Your task to perform on an android device: Go to settings Image 0: 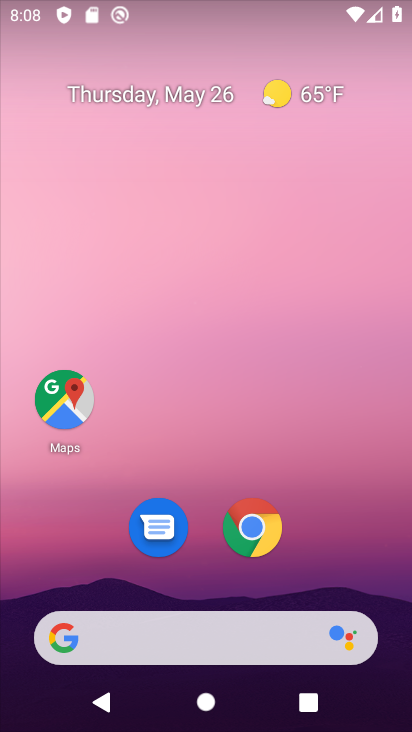
Step 0: drag from (354, 552) to (406, 262)
Your task to perform on an android device: Go to settings Image 1: 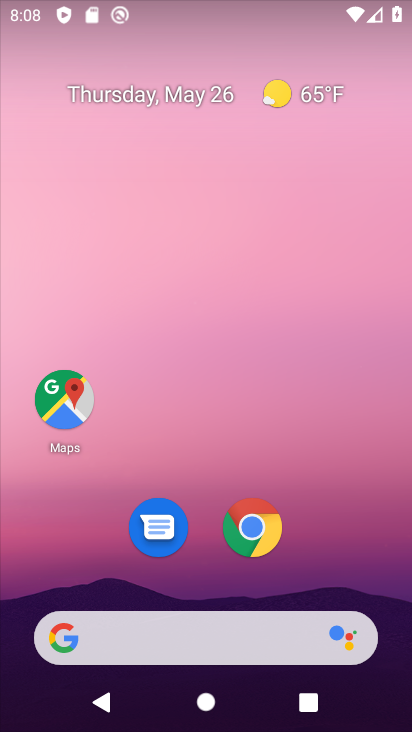
Step 1: drag from (346, 571) to (307, 103)
Your task to perform on an android device: Go to settings Image 2: 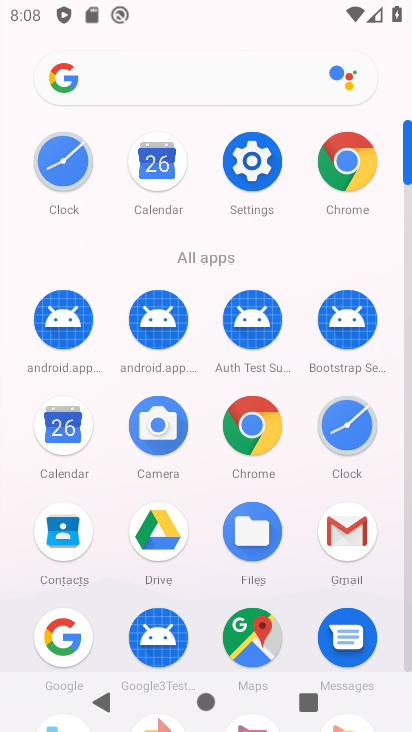
Step 2: click (250, 149)
Your task to perform on an android device: Go to settings Image 3: 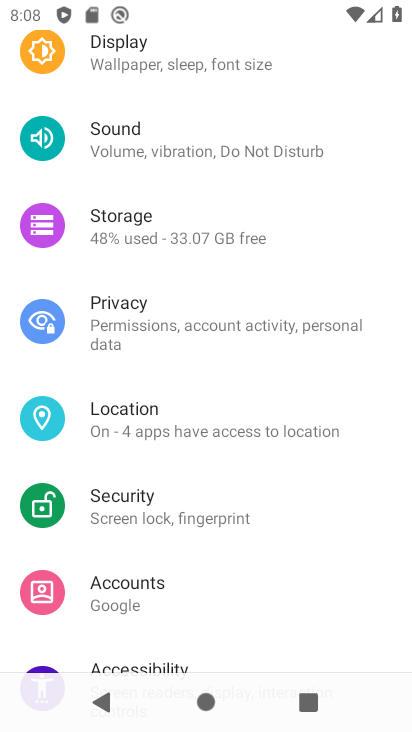
Step 3: task complete